Your task to perform on an android device: Search for sushi restaurants on Maps Image 0: 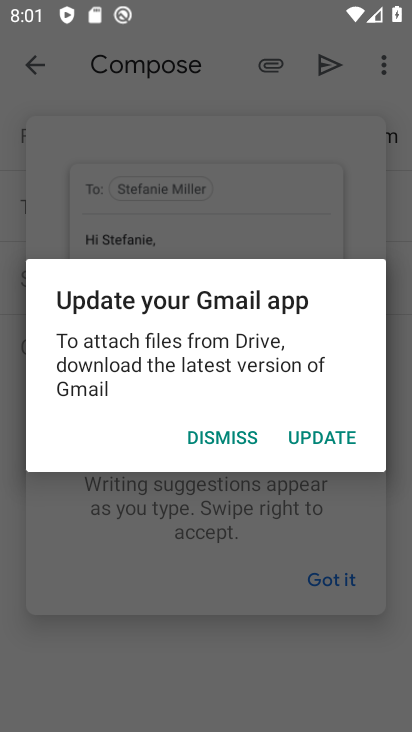
Step 0: press home button
Your task to perform on an android device: Search for sushi restaurants on Maps Image 1: 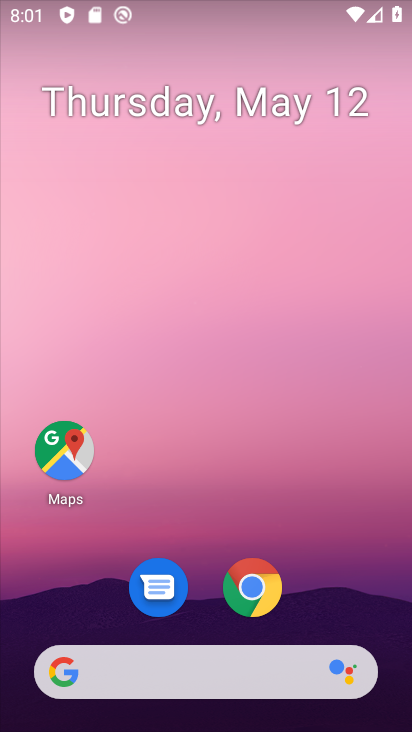
Step 1: click (80, 459)
Your task to perform on an android device: Search for sushi restaurants on Maps Image 2: 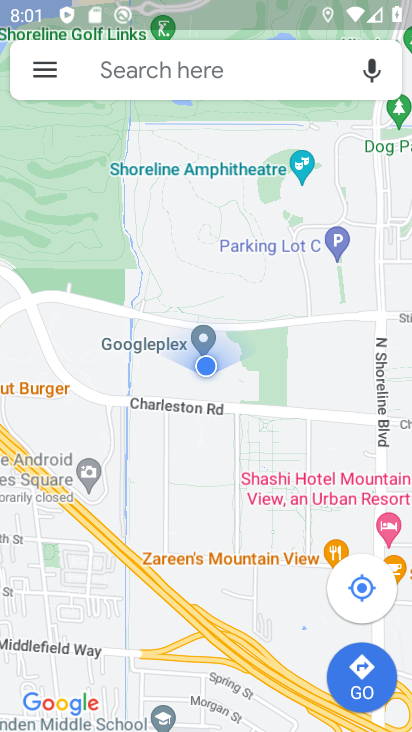
Step 2: click (182, 55)
Your task to perform on an android device: Search for sushi restaurants on Maps Image 3: 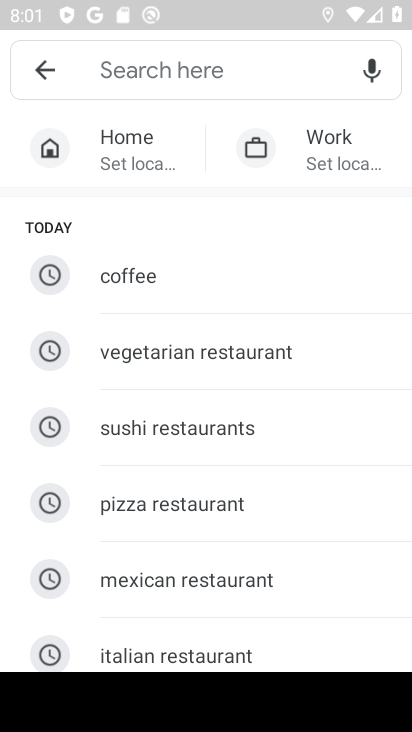
Step 3: click (136, 438)
Your task to perform on an android device: Search for sushi restaurants on Maps Image 4: 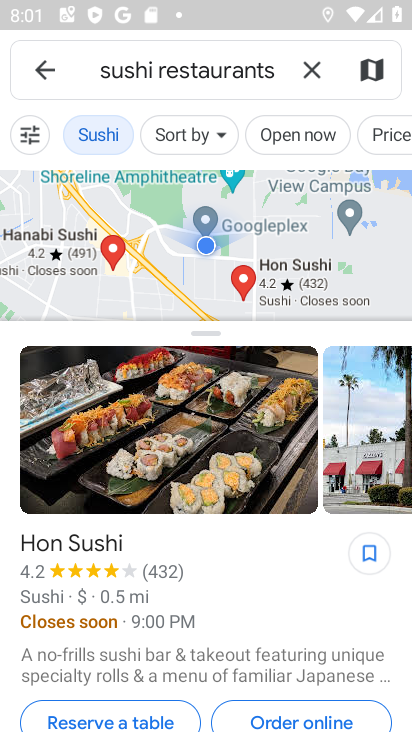
Step 4: task complete